Your task to perform on an android device: remove spam from my inbox in the gmail app Image 0: 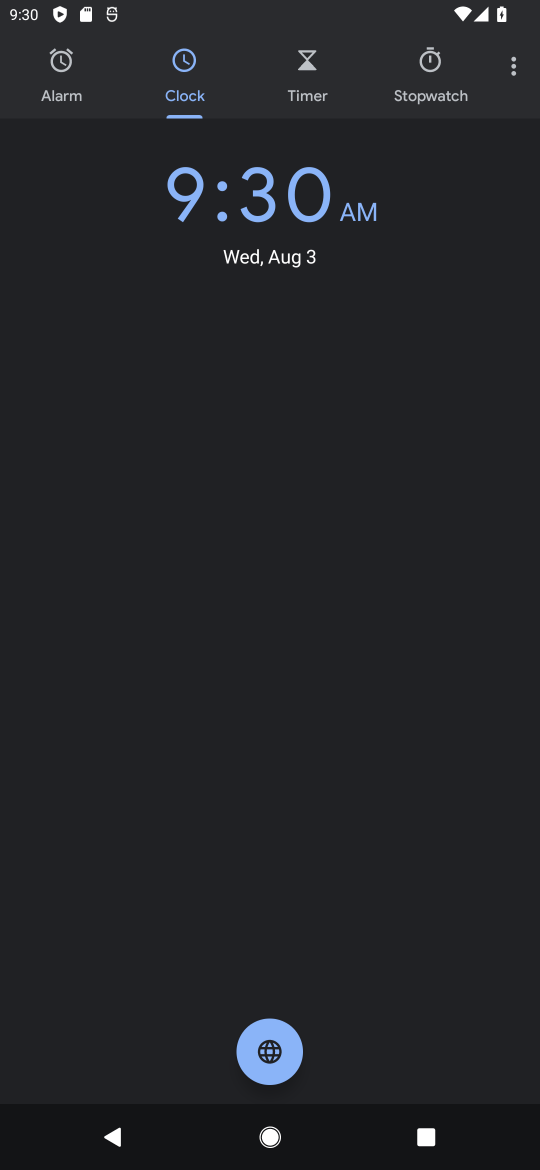
Step 0: press home button
Your task to perform on an android device: remove spam from my inbox in the gmail app Image 1: 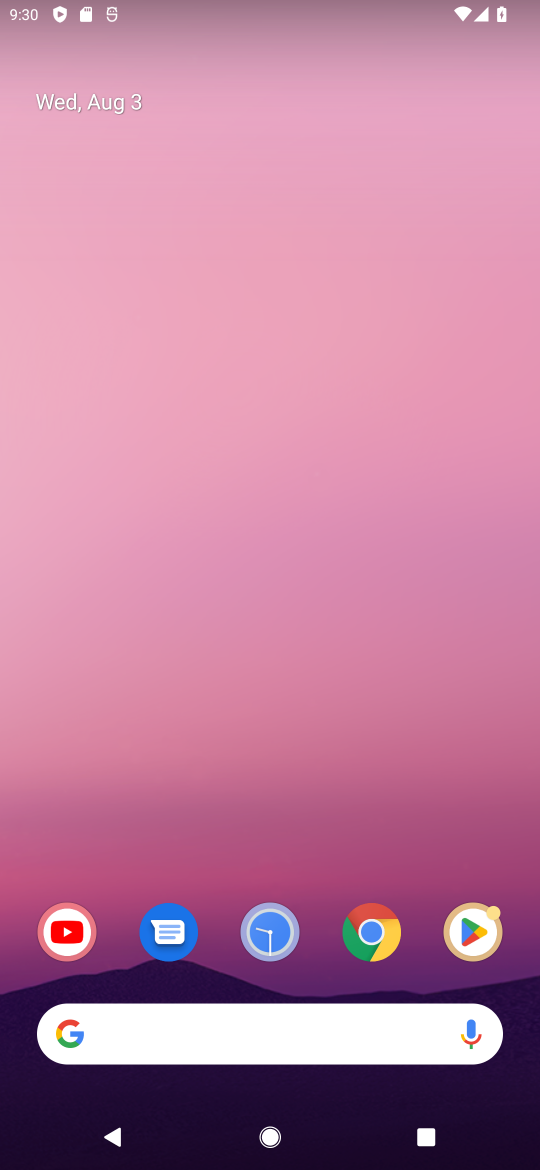
Step 1: drag from (325, 841) to (292, 105)
Your task to perform on an android device: remove spam from my inbox in the gmail app Image 2: 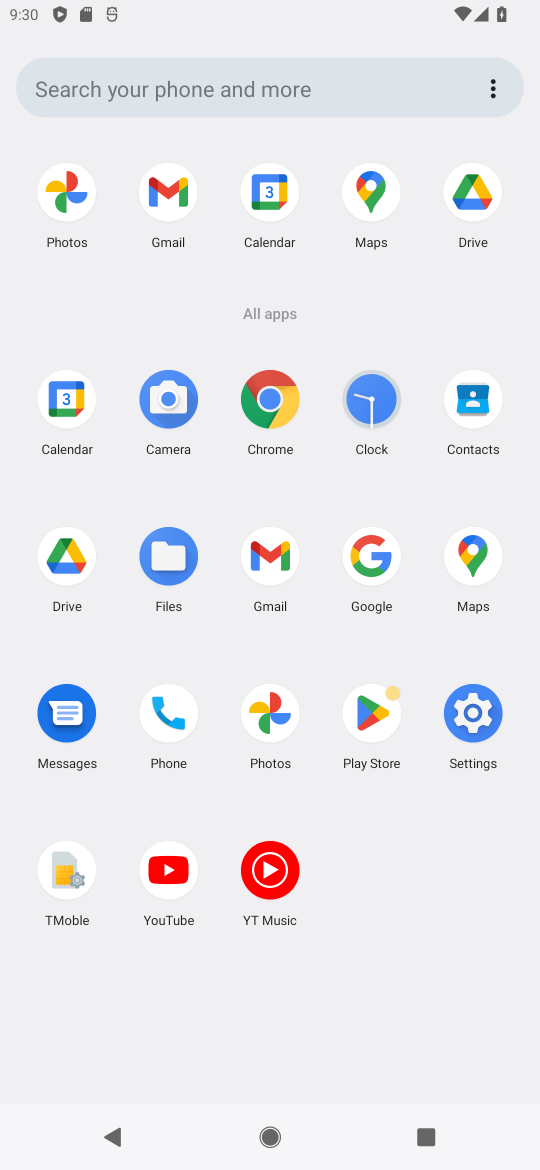
Step 2: click (181, 183)
Your task to perform on an android device: remove spam from my inbox in the gmail app Image 3: 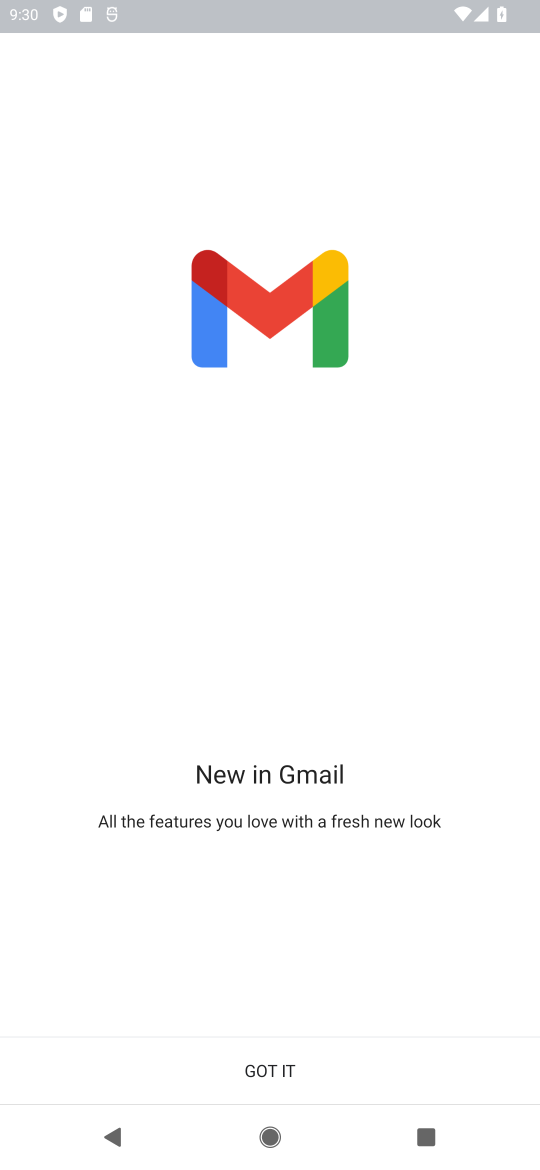
Step 3: click (289, 1082)
Your task to perform on an android device: remove spam from my inbox in the gmail app Image 4: 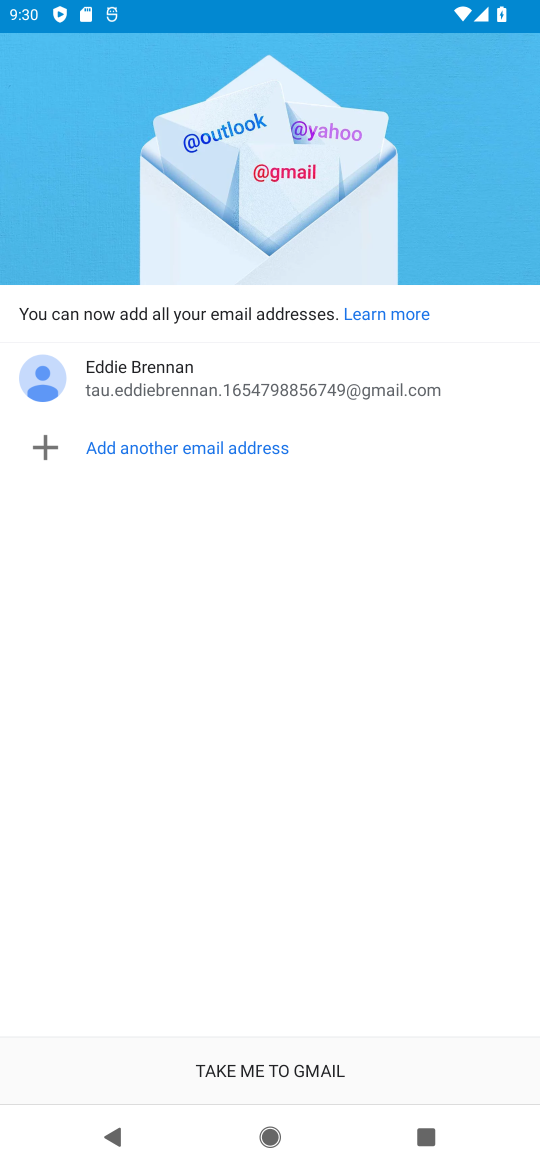
Step 4: click (289, 1072)
Your task to perform on an android device: remove spam from my inbox in the gmail app Image 5: 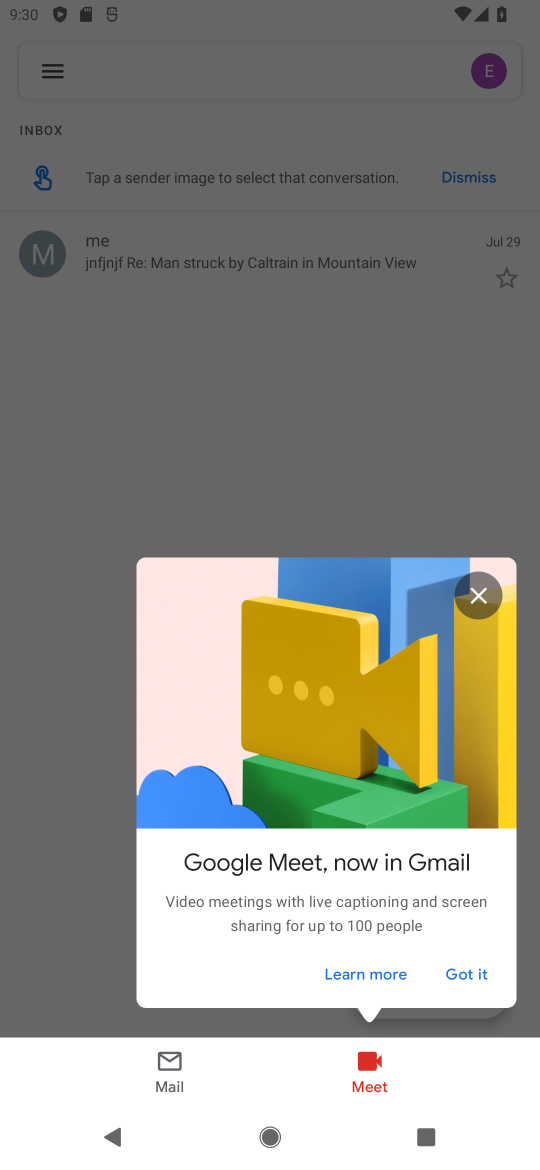
Step 5: click (487, 599)
Your task to perform on an android device: remove spam from my inbox in the gmail app Image 6: 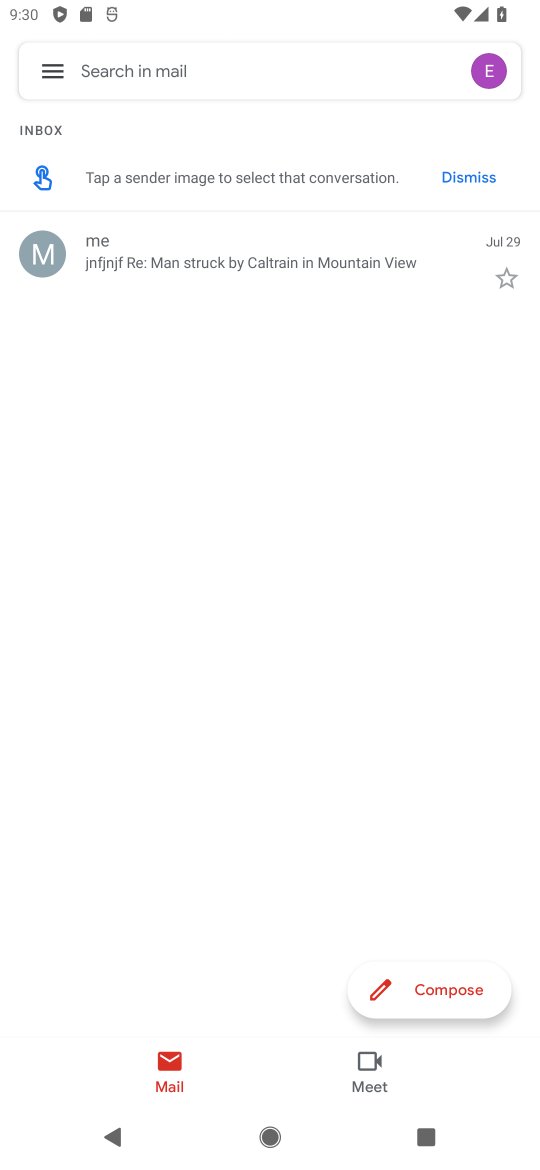
Step 6: click (43, 69)
Your task to perform on an android device: remove spam from my inbox in the gmail app Image 7: 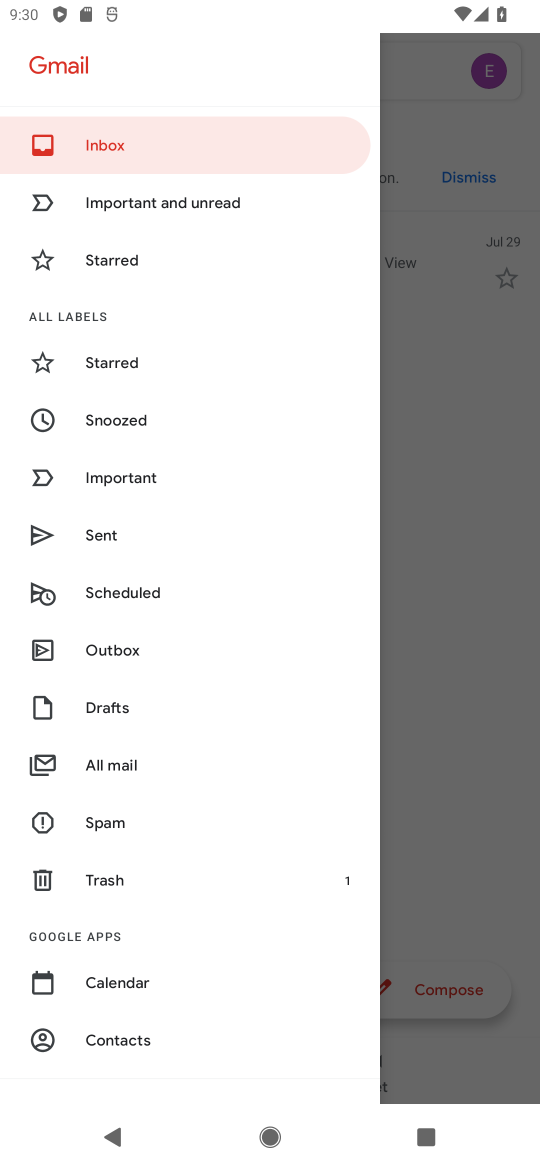
Step 7: click (148, 830)
Your task to perform on an android device: remove spam from my inbox in the gmail app Image 8: 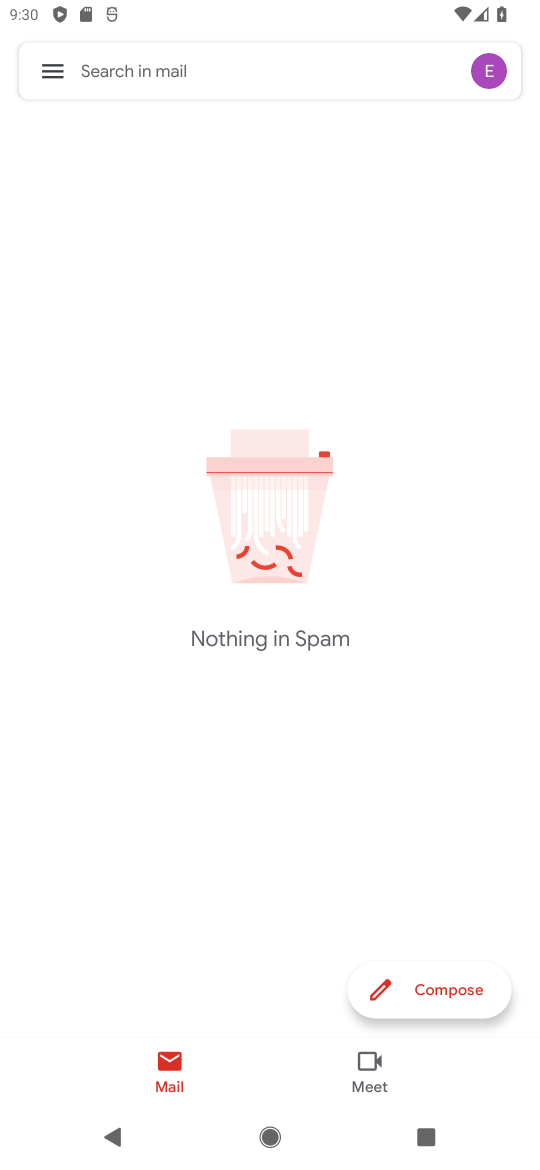
Step 8: task complete